Your task to perform on an android device: open a new tab in the chrome app Image 0: 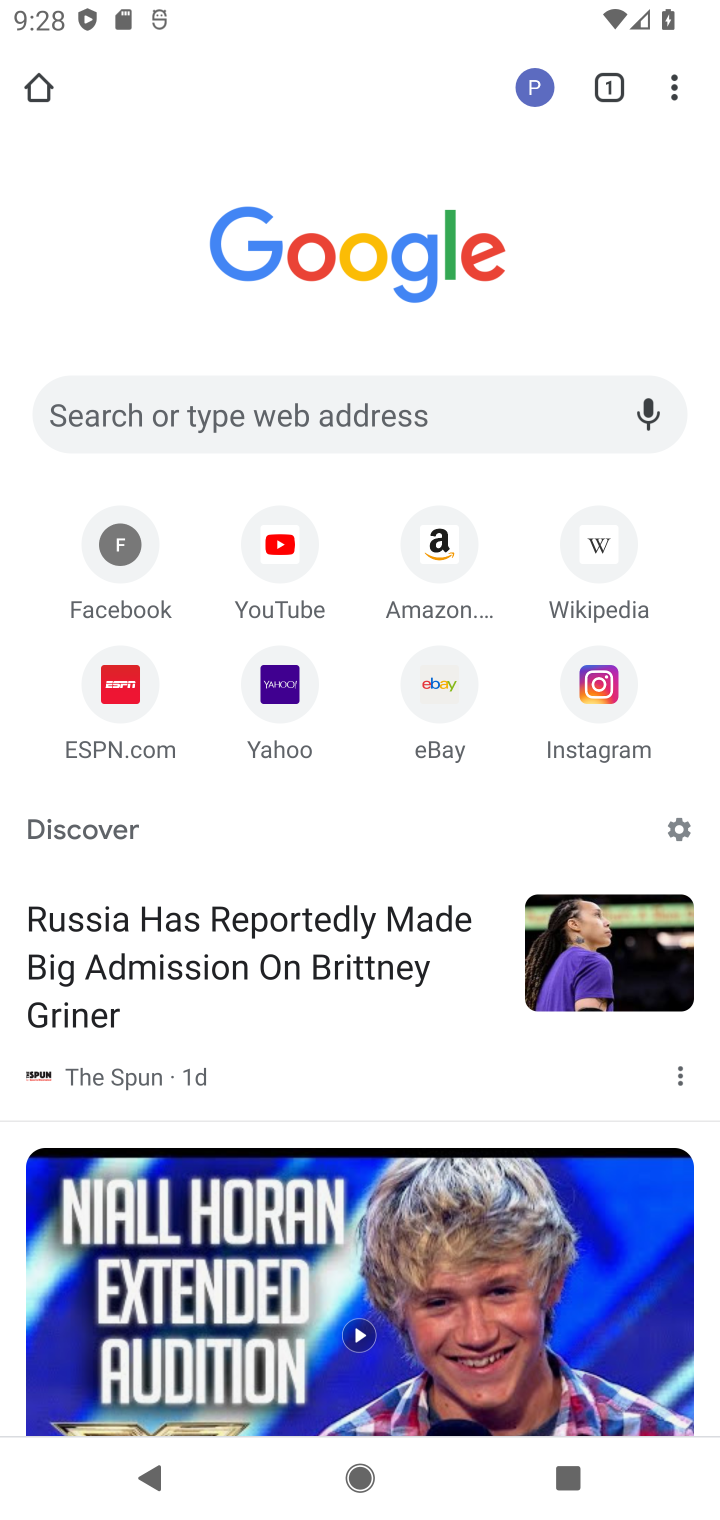
Step 0: press home button
Your task to perform on an android device: open a new tab in the chrome app Image 1: 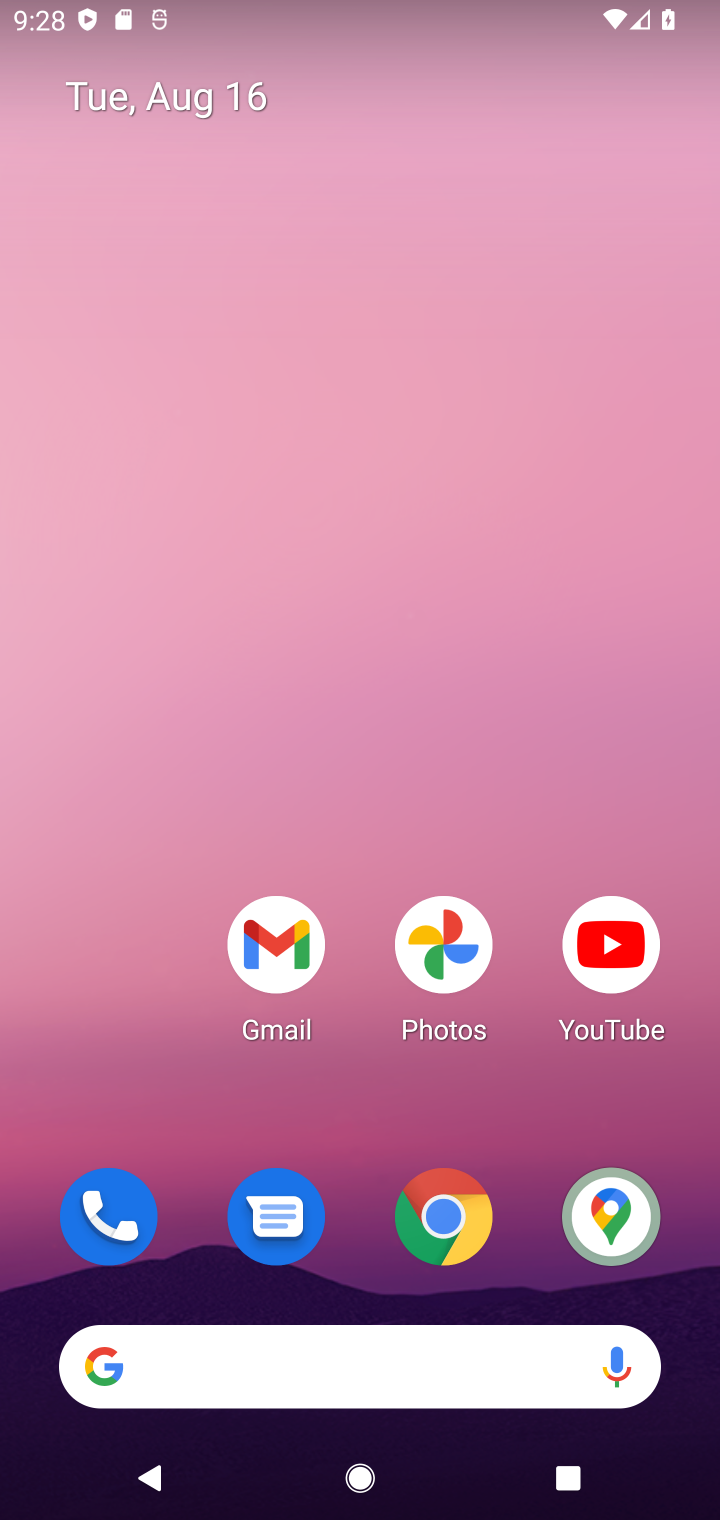
Step 1: click (453, 1219)
Your task to perform on an android device: open a new tab in the chrome app Image 2: 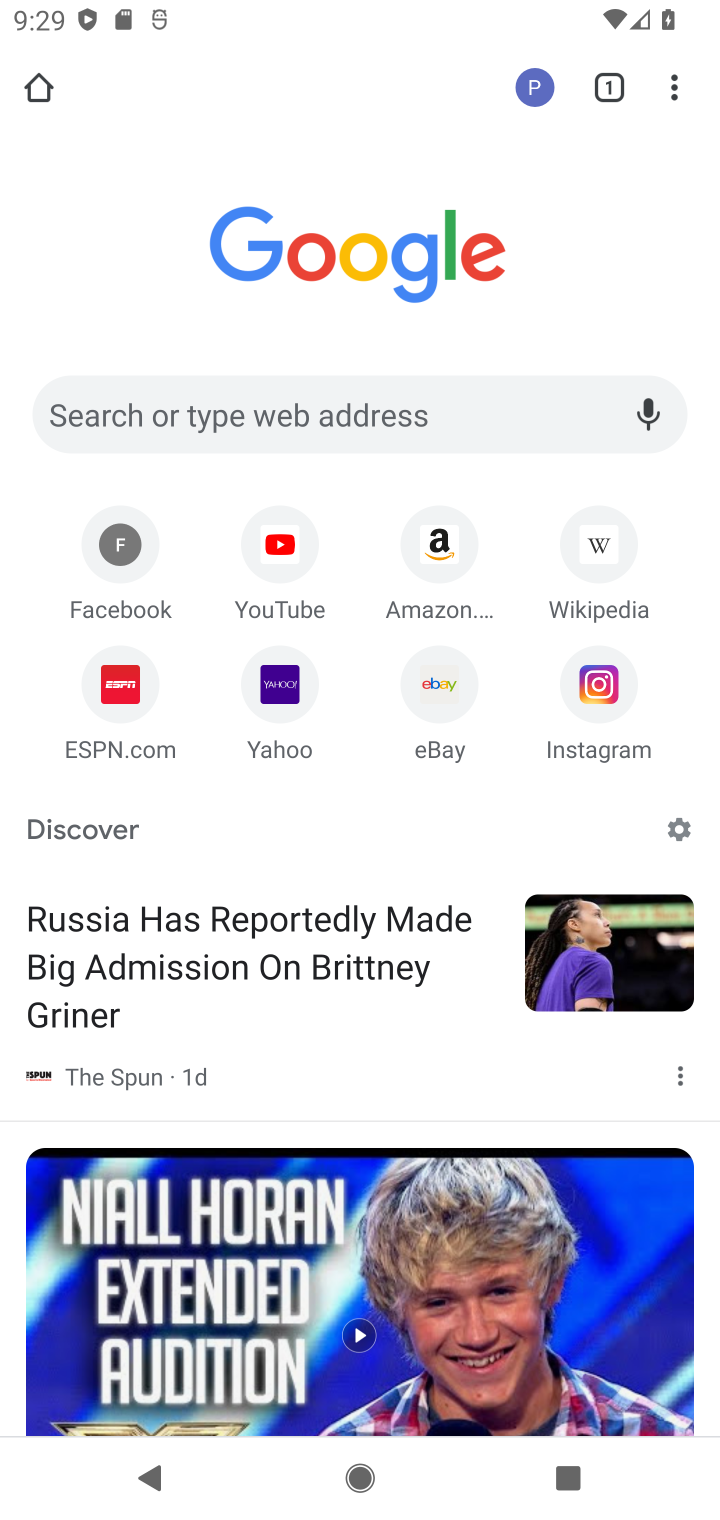
Step 2: click (675, 90)
Your task to perform on an android device: open a new tab in the chrome app Image 3: 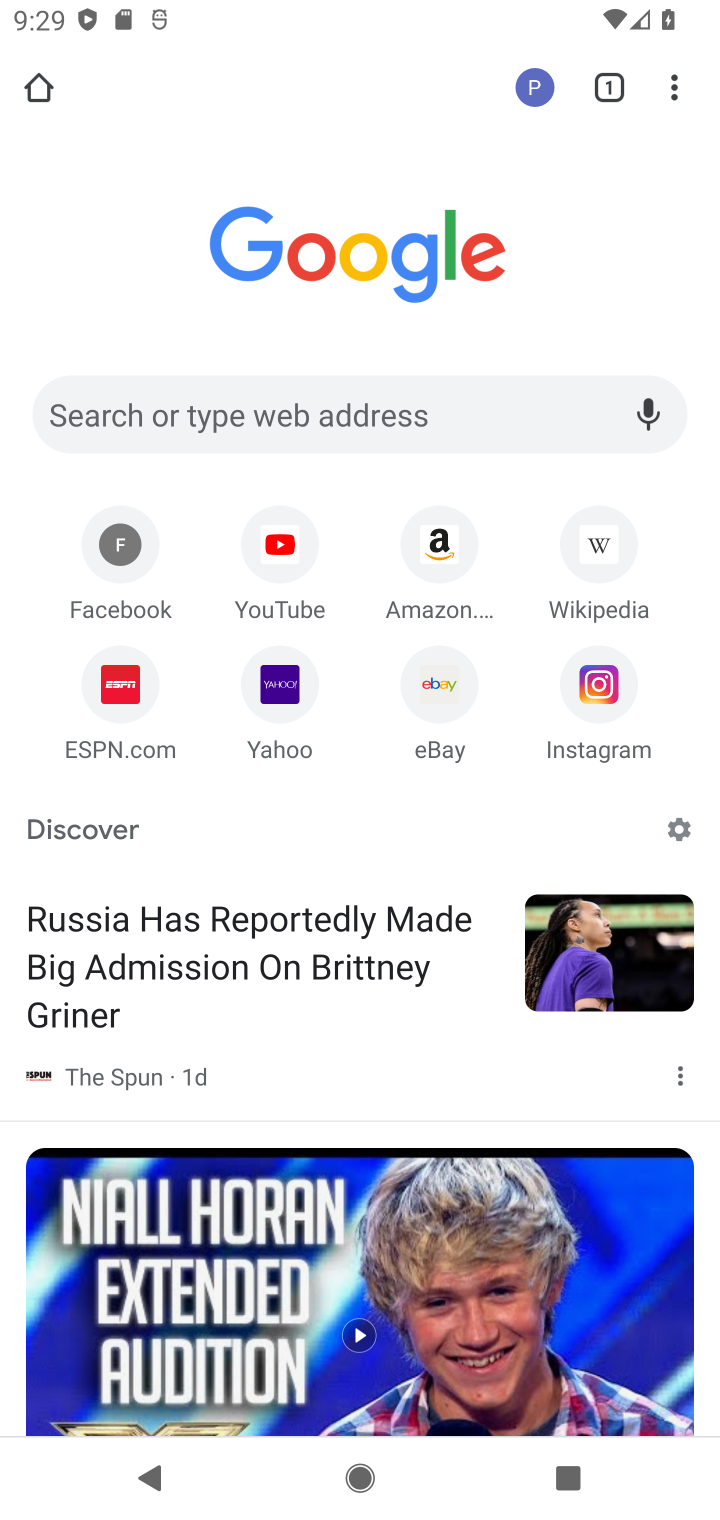
Step 3: task complete